Your task to perform on an android device: Go to Maps Image 0: 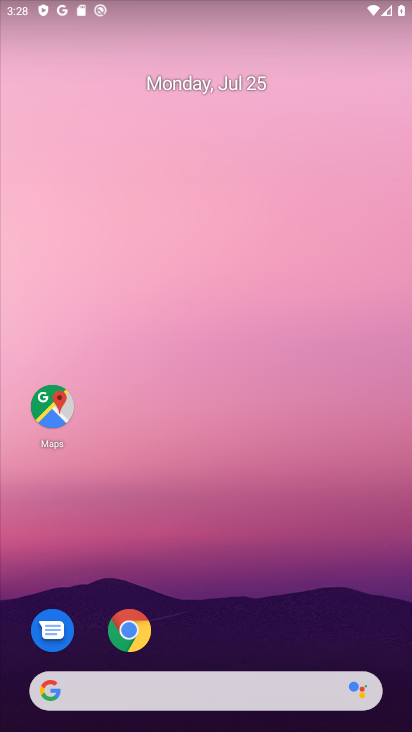
Step 0: click (52, 408)
Your task to perform on an android device: Go to Maps Image 1: 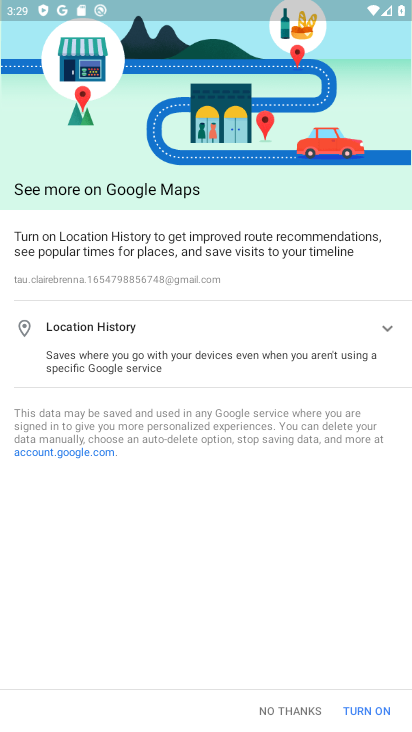
Step 1: click (297, 709)
Your task to perform on an android device: Go to Maps Image 2: 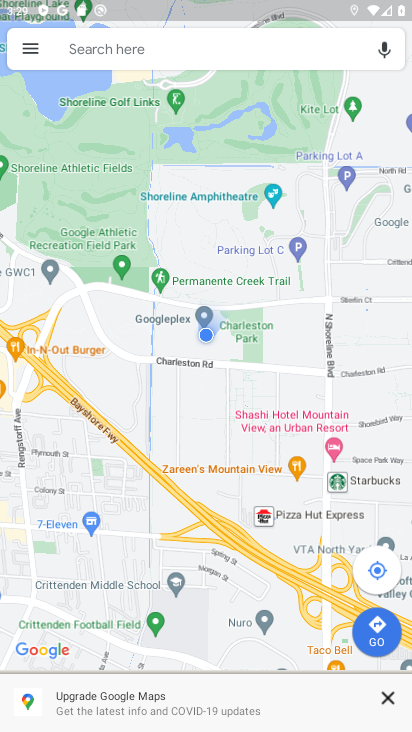
Step 2: task complete